Your task to perform on an android device: Go to battery settings Image 0: 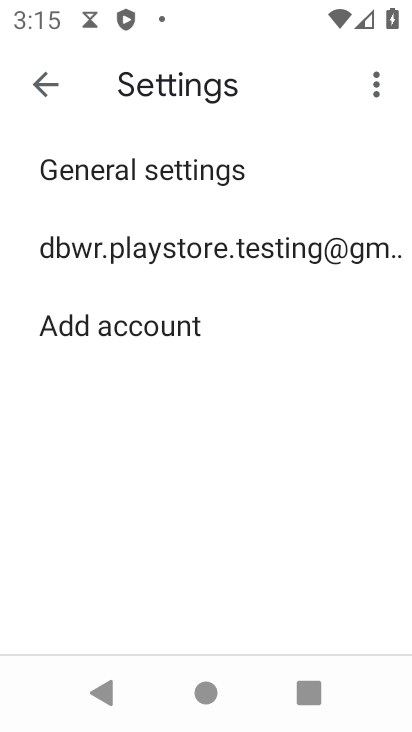
Step 0: press back button
Your task to perform on an android device: Go to battery settings Image 1: 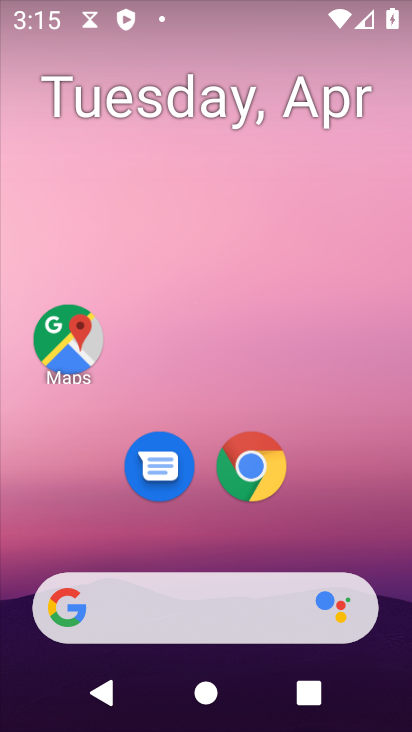
Step 1: drag from (322, 519) to (312, 4)
Your task to perform on an android device: Go to battery settings Image 2: 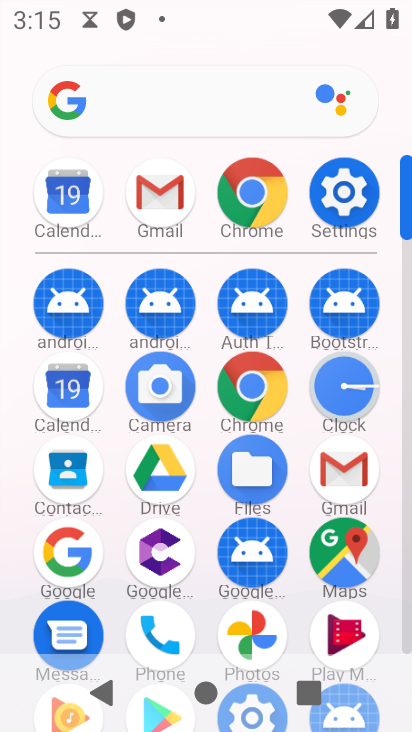
Step 2: drag from (7, 519) to (28, 189)
Your task to perform on an android device: Go to battery settings Image 3: 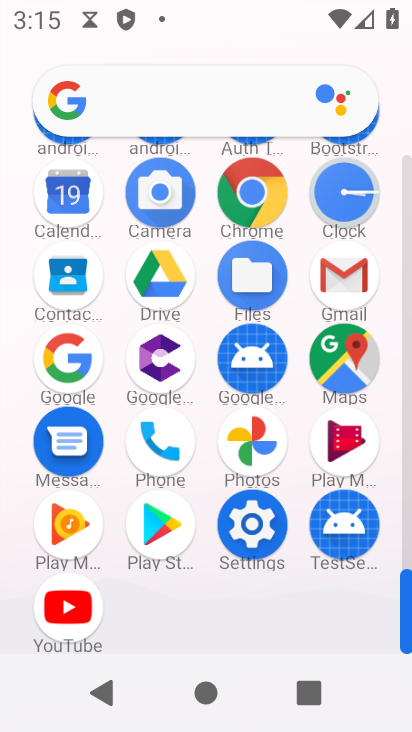
Step 3: click (249, 516)
Your task to perform on an android device: Go to battery settings Image 4: 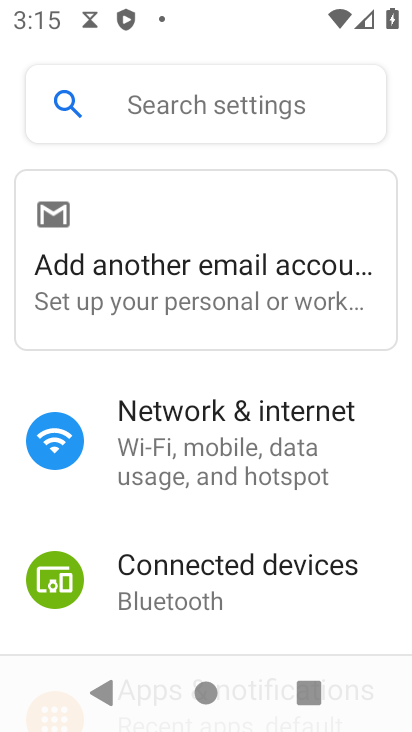
Step 4: drag from (19, 546) to (22, 188)
Your task to perform on an android device: Go to battery settings Image 5: 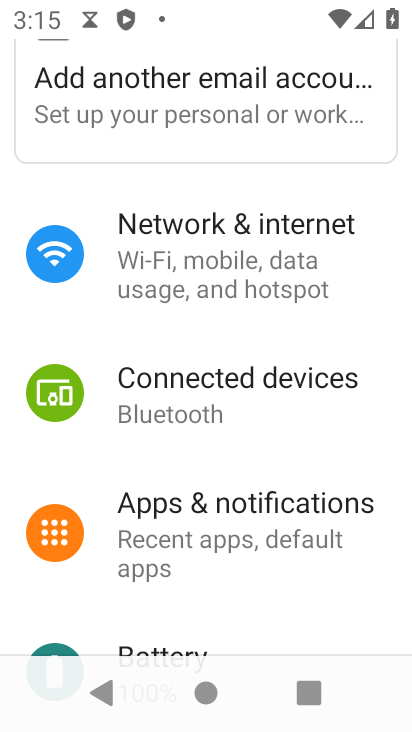
Step 5: drag from (20, 562) to (13, 254)
Your task to perform on an android device: Go to battery settings Image 6: 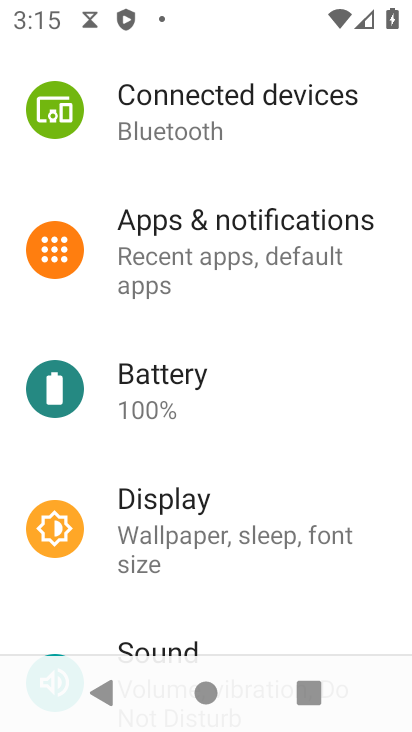
Step 6: click (223, 381)
Your task to perform on an android device: Go to battery settings Image 7: 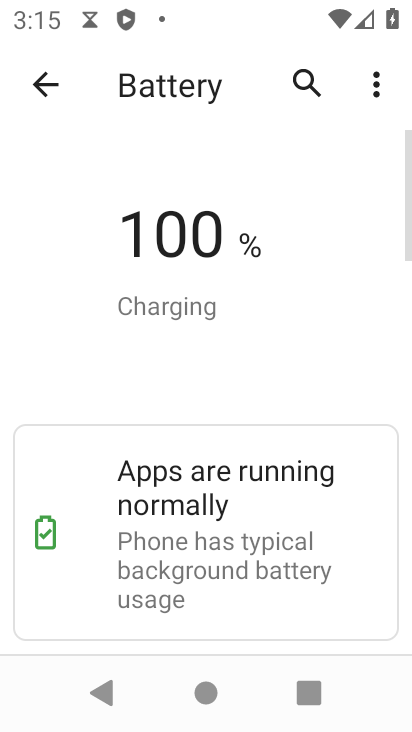
Step 7: click (375, 94)
Your task to perform on an android device: Go to battery settings Image 8: 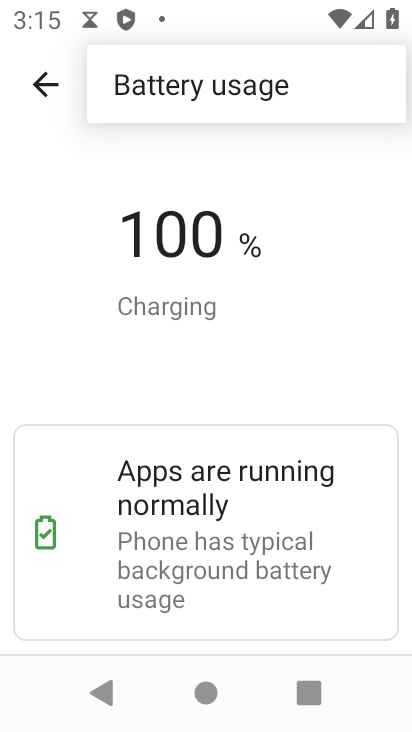
Step 8: click (287, 86)
Your task to perform on an android device: Go to battery settings Image 9: 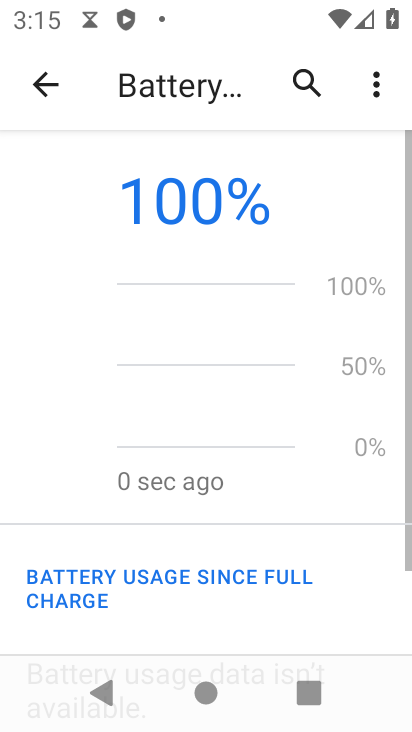
Step 9: click (38, 69)
Your task to perform on an android device: Go to battery settings Image 10: 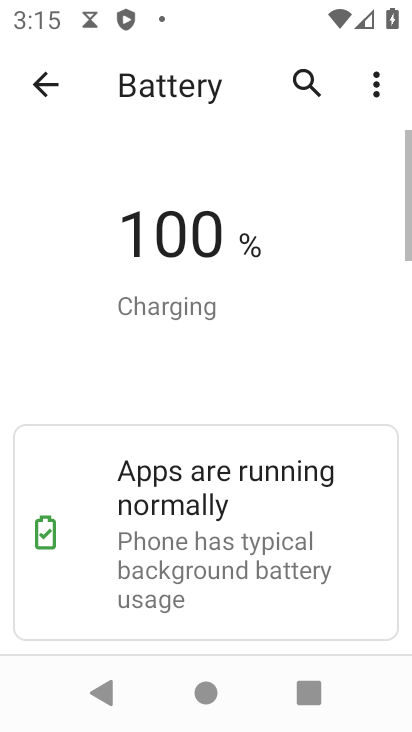
Step 10: task complete